Your task to perform on an android device: Open Google Chrome Image 0: 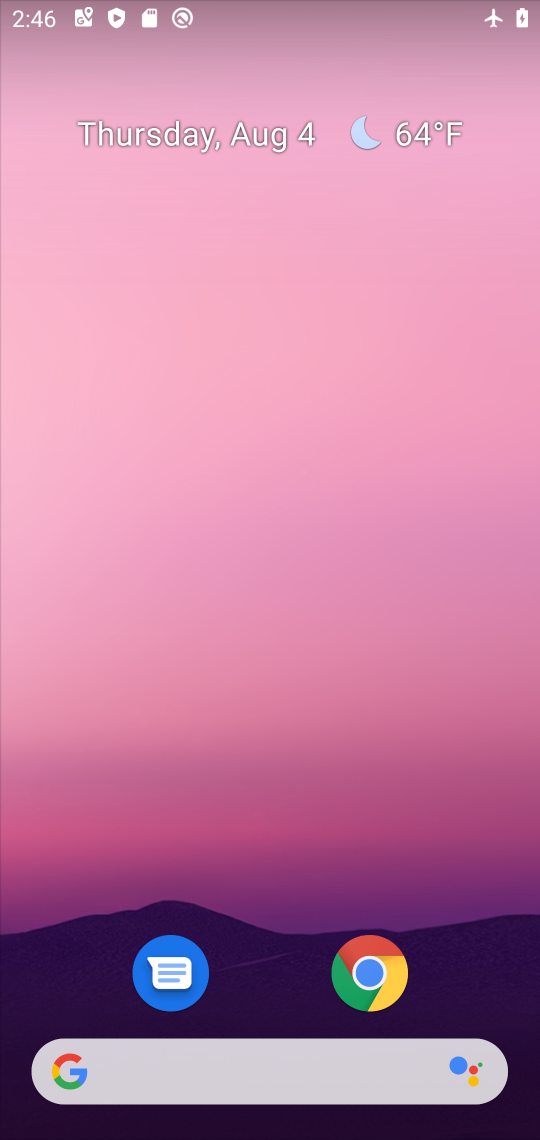
Step 0: drag from (276, 1024) to (317, 269)
Your task to perform on an android device: Open Google Chrome Image 1: 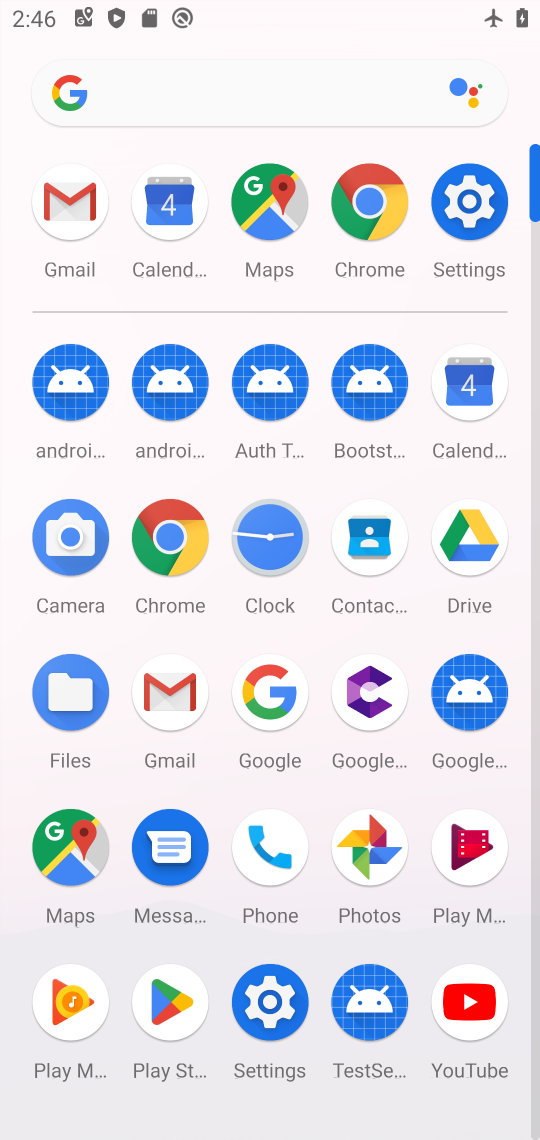
Step 1: click (194, 545)
Your task to perform on an android device: Open Google Chrome Image 2: 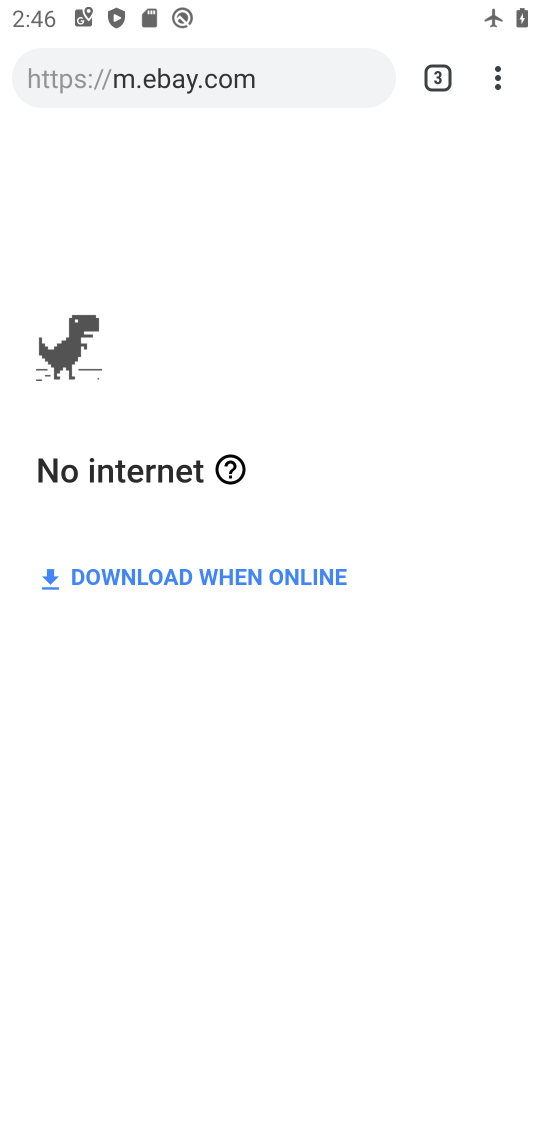
Step 2: task complete